Your task to perform on an android device: turn off smart reply in the gmail app Image 0: 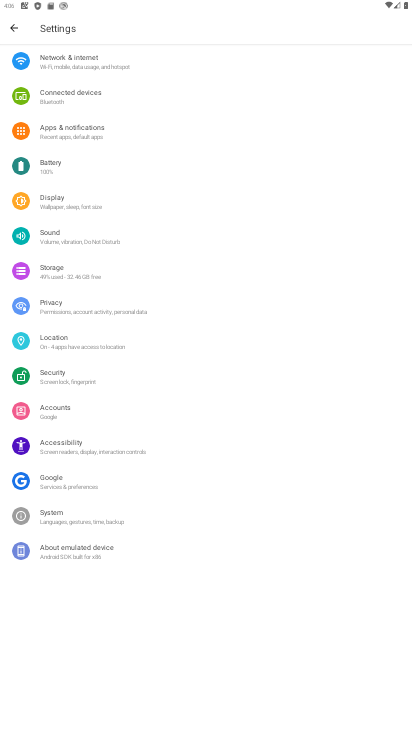
Step 0: press home button
Your task to perform on an android device: turn off smart reply in the gmail app Image 1: 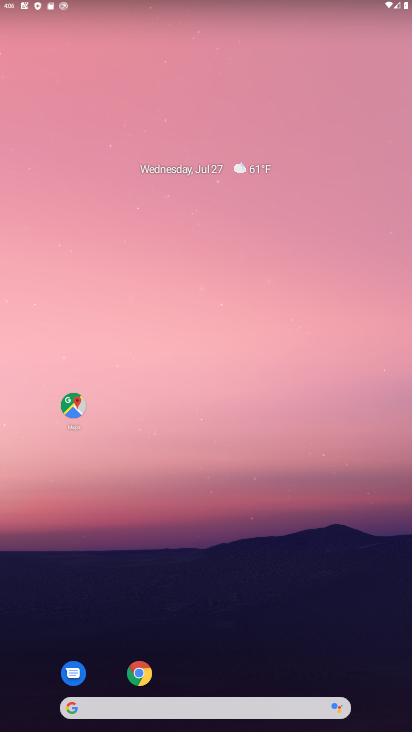
Step 1: drag from (245, 573) to (93, 8)
Your task to perform on an android device: turn off smart reply in the gmail app Image 2: 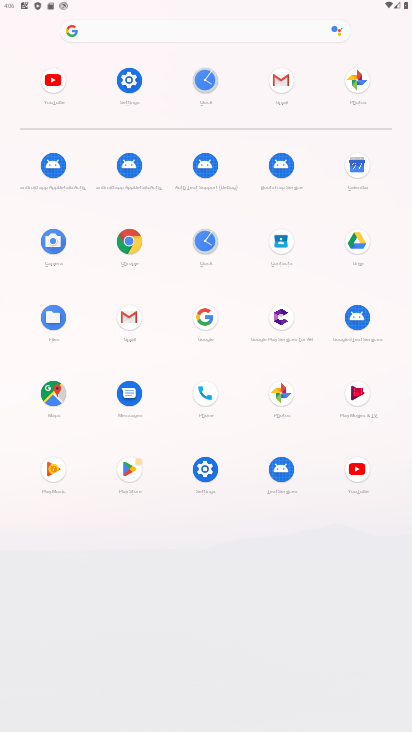
Step 2: click (128, 319)
Your task to perform on an android device: turn off smart reply in the gmail app Image 3: 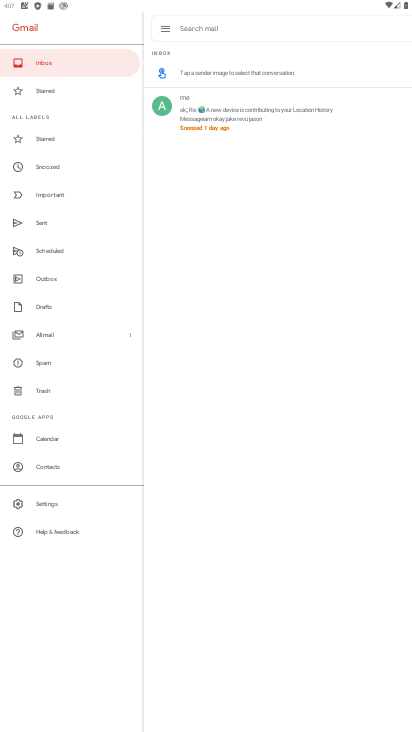
Step 3: click (71, 499)
Your task to perform on an android device: turn off smart reply in the gmail app Image 4: 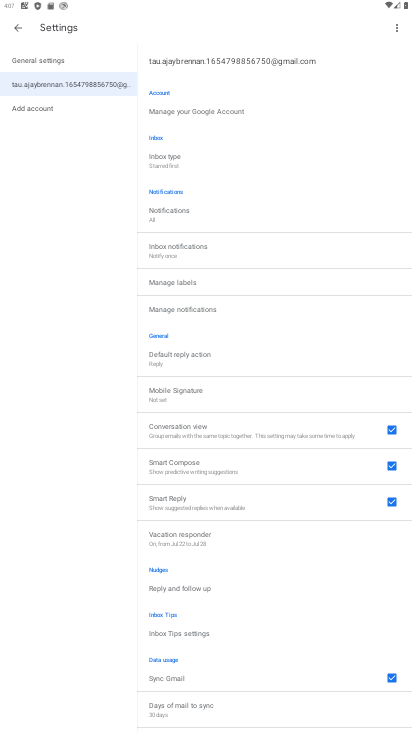
Step 4: click (393, 499)
Your task to perform on an android device: turn off smart reply in the gmail app Image 5: 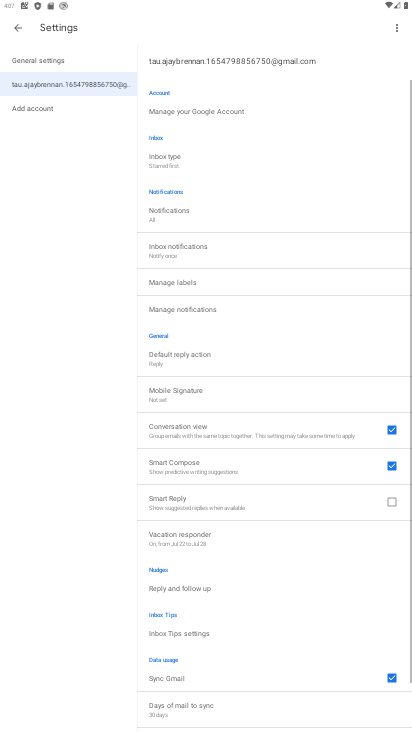
Step 5: task complete